Your task to perform on an android device: check storage Image 0: 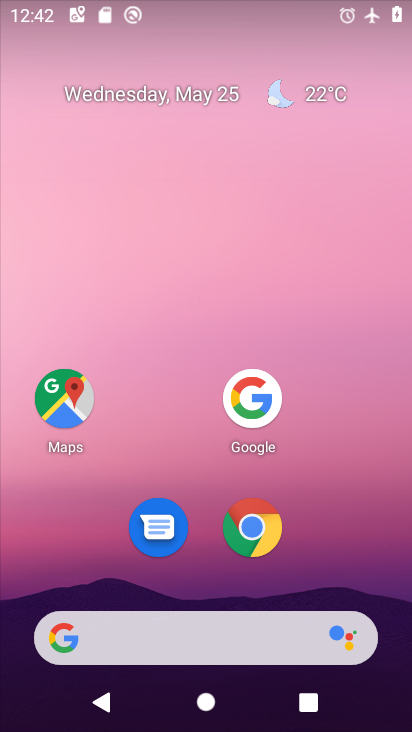
Step 0: press home button
Your task to perform on an android device: check storage Image 1: 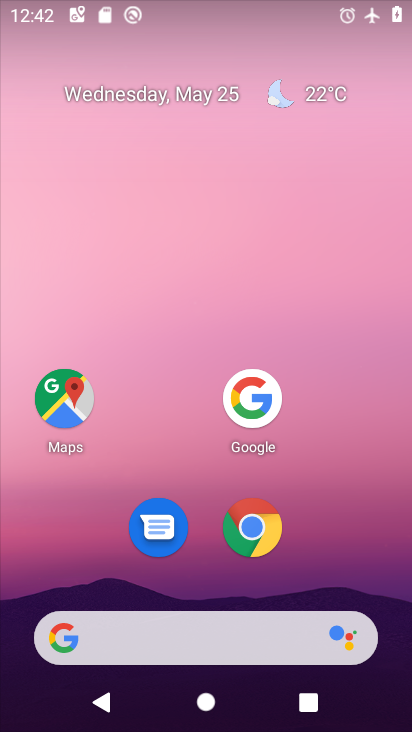
Step 1: drag from (212, 595) to (344, 165)
Your task to perform on an android device: check storage Image 2: 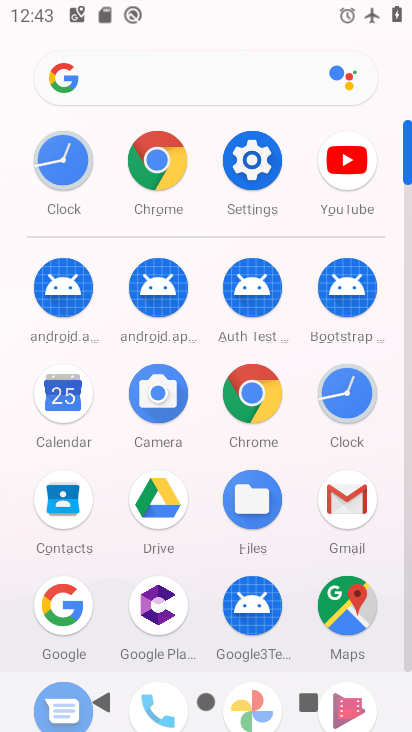
Step 2: click (255, 177)
Your task to perform on an android device: check storage Image 3: 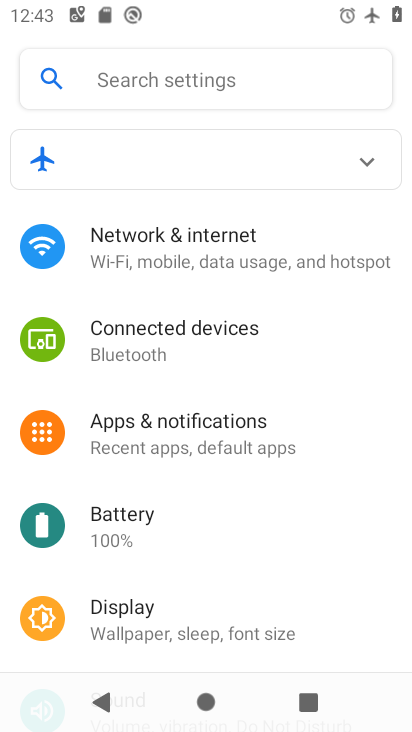
Step 3: drag from (201, 598) to (316, 159)
Your task to perform on an android device: check storage Image 4: 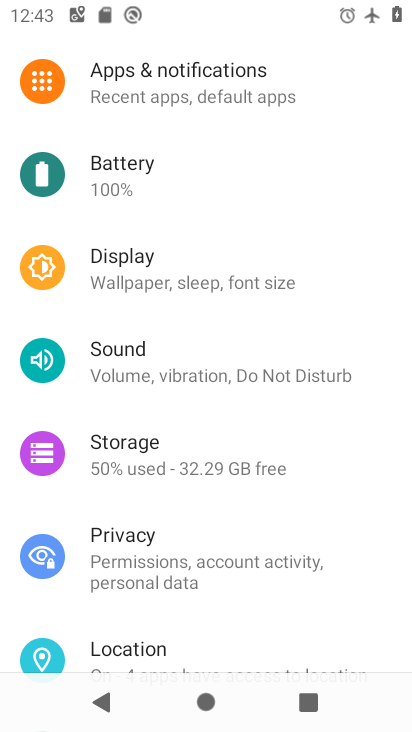
Step 4: click (174, 478)
Your task to perform on an android device: check storage Image 5: 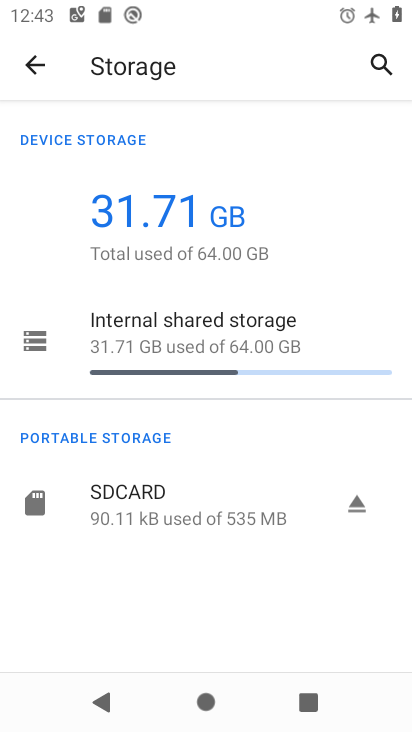
Step 5: task complete